Your task to perform on an android device: set default search engine in the chrome app Image 0: 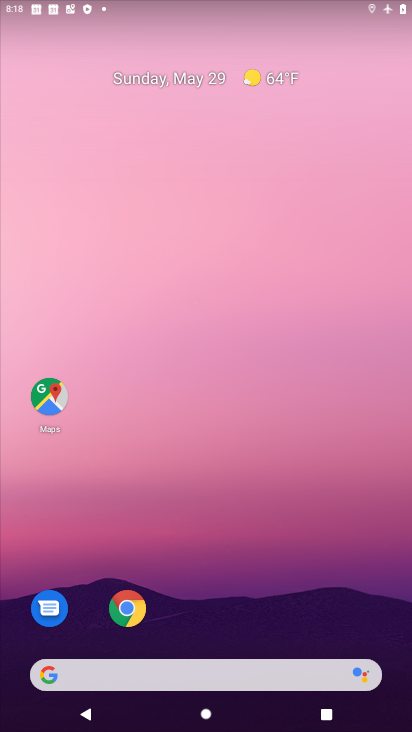
Step 0: click (120, 604)
Your task to perform on an android device: set default search engine in the chrome app Image 1: 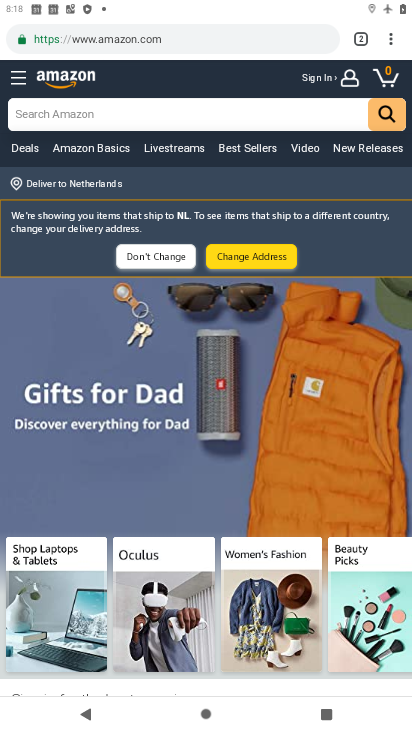
Step 1: click (382, 35)
Your task to perform on an android device: set default search engine in the chrome app Image 2: 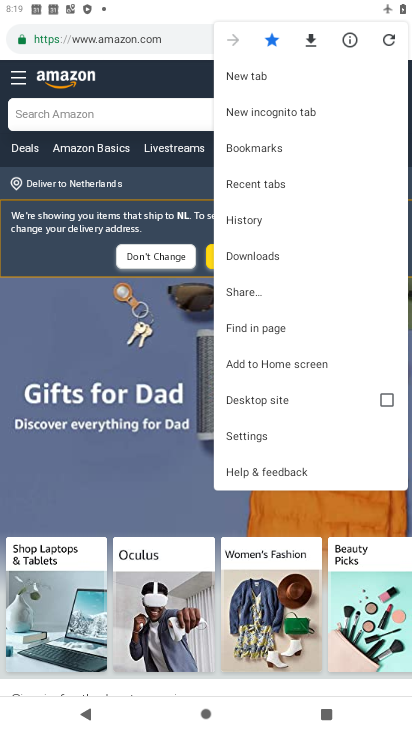
Step 2: click (252, 435)
Your task to perform on an android device: set default search engine in the chrome app Image 3: 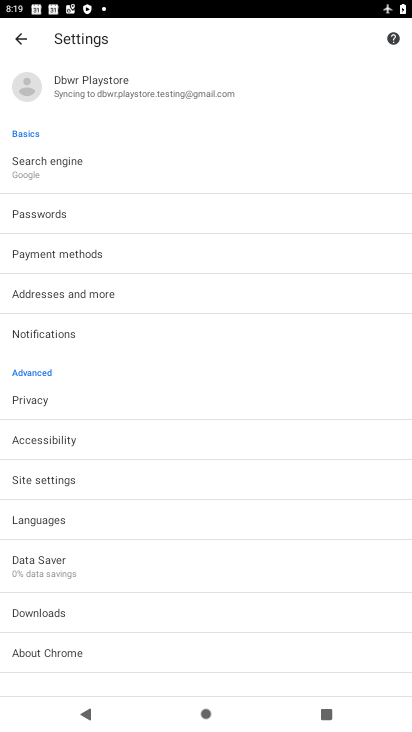
Step 3: click (41, 160)
Your task to perform on an android device: set default search engine in the chrome app Image 4: 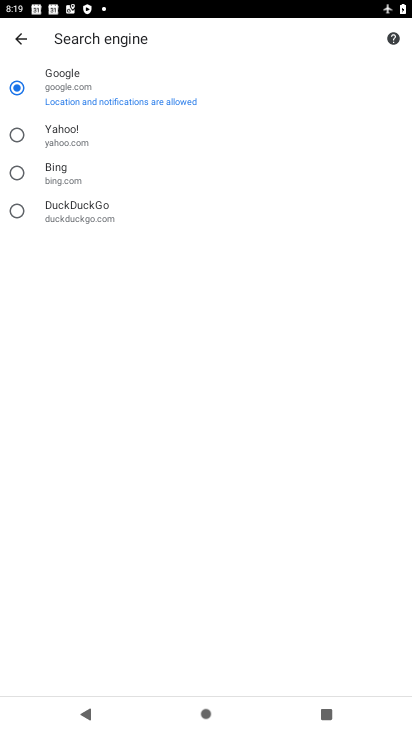
Step 4: click (24, 127)
Your task to perform on an android device: set default search engine in the chrome app Image 5: 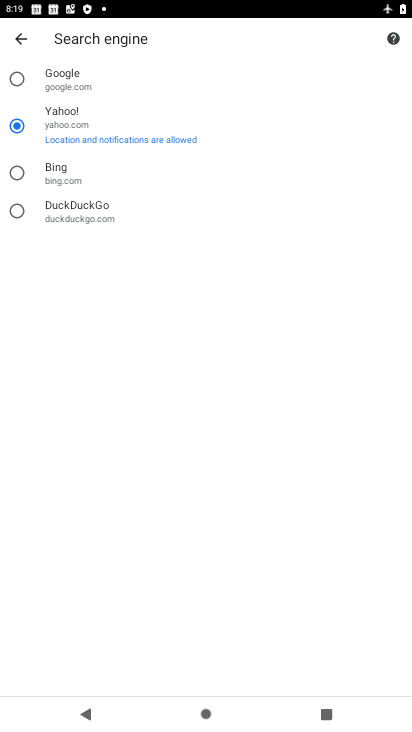
Step 5: task complete